Your task to perform on an android device: Go to display settings Image 0: 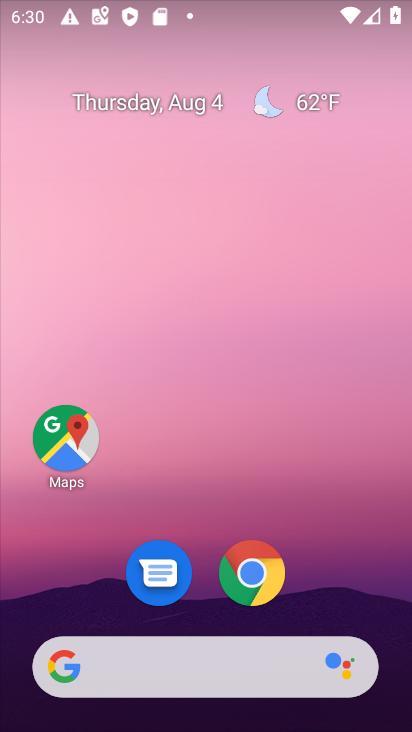
Step 0: press home button
Your task to perform on an android device: Go to display settings Image 1: 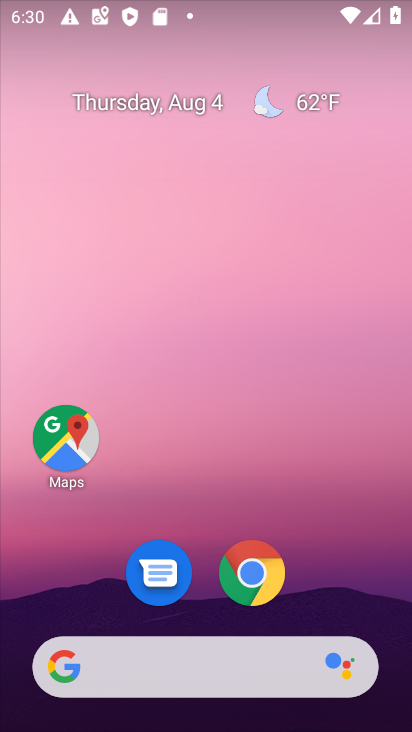
Step 1: drag from (205, 627) to (212, 197)
Your task to perform on an android device: Go to display settings Image 2: 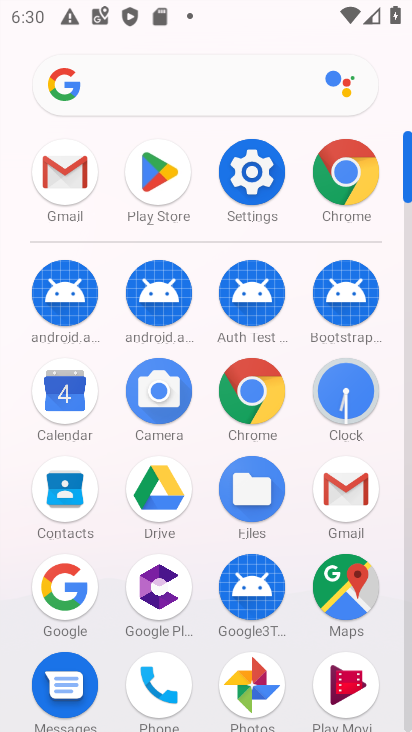
Step 2: click (245, 187)
Your task to perform on an android device: Go to display settings Image 3: 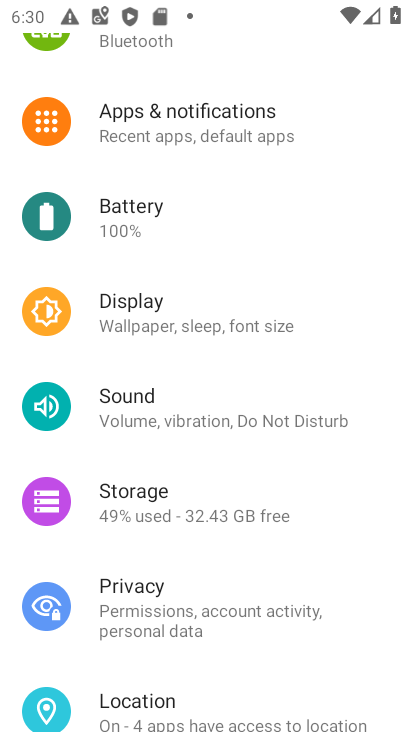
Step 3: click (129, 320)
Your task to perform on an android device: Go to display settings Image 4: 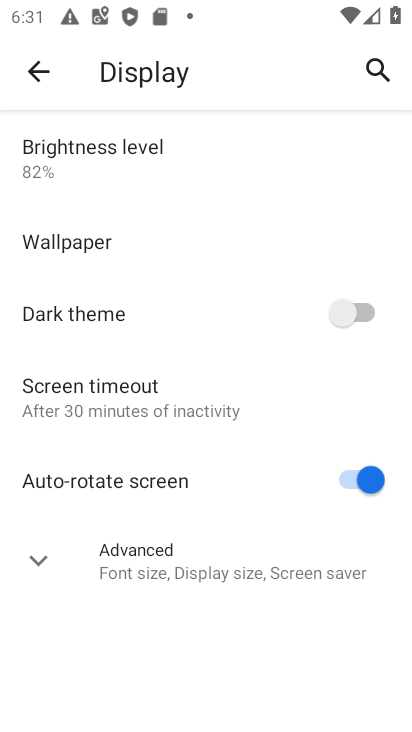
Step 4: task complete